Your task to perform on an android device: turn vacation reply on in the gmail app Image 0: 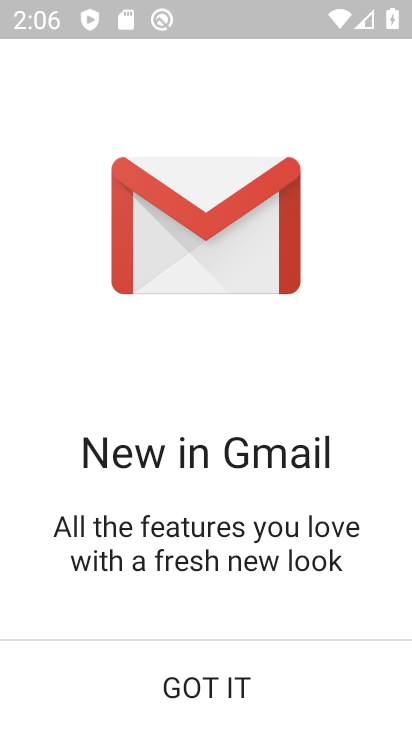
Step 0: press home button
Your task to perform on an android device: turn vacation reply on in the gmail app Image 1: 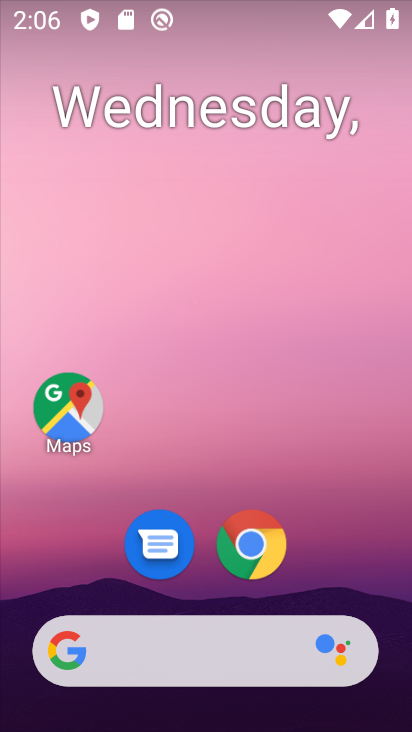
Step 1: drag from (366, 583) to (322, 214)
Your task to perform on an android device: turn vacation reply on in the gmail app Image 2: 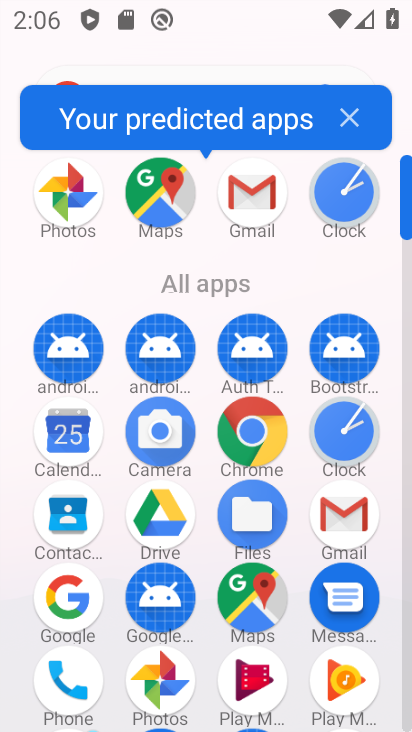
Step 2: click (337, 518)
Your task to perform on an android device: turn vacation reply on in the gmail app Image 3: 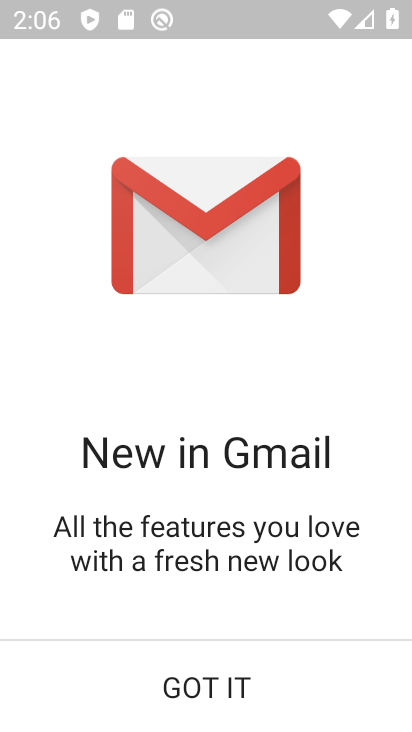
Step 3: click (197, 694)
Your task to perform on an android device: turn vacation reply on in the gmail app Image 4: 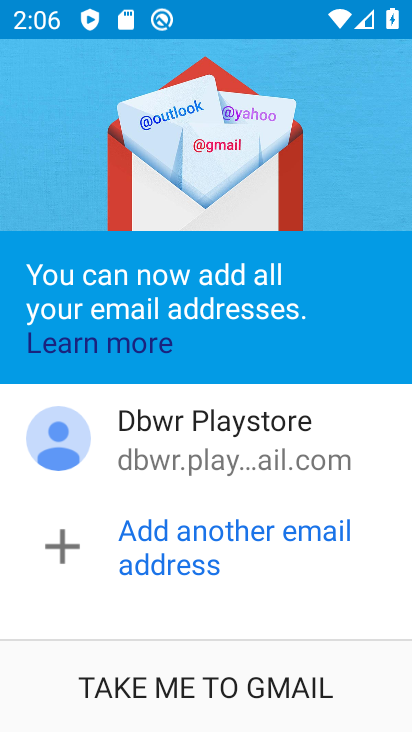
Step 4: click (273, 685)
Your task to perform on an android device: turn vacation reply on in the gmail app Image 5: 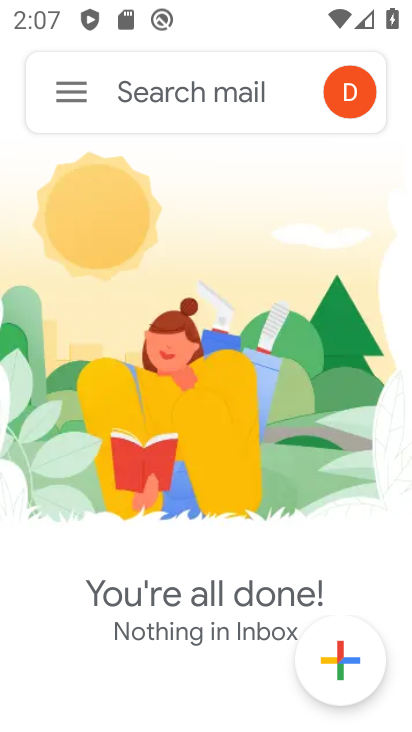
Step 5: click (72, 92)
Your task to perform on an android device: turn vacation reply on in the gmail app Image 6: 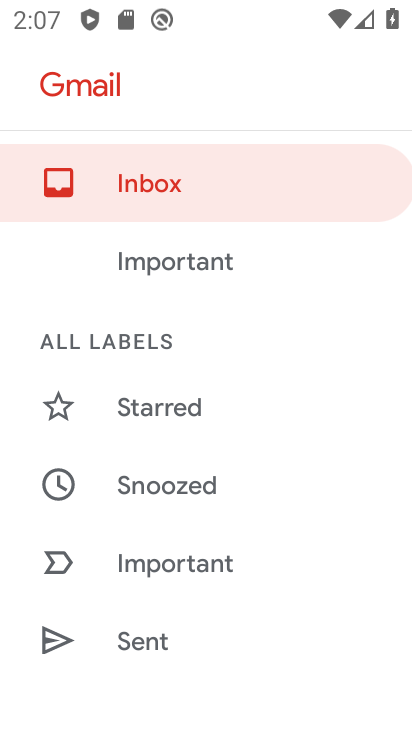
Step 6: drag from (201, 615) to (203, 215)
Your task to perform on an android device: turn vacation reply on in the gmail app Image 7: 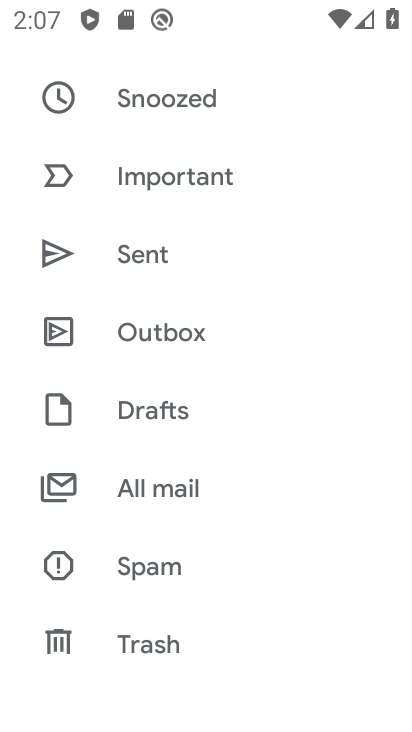
Step 7: drag from (235, 636) to (252, 297)
Your task to perform on an android device: turn vacation reply on in the gmail app Image 8: 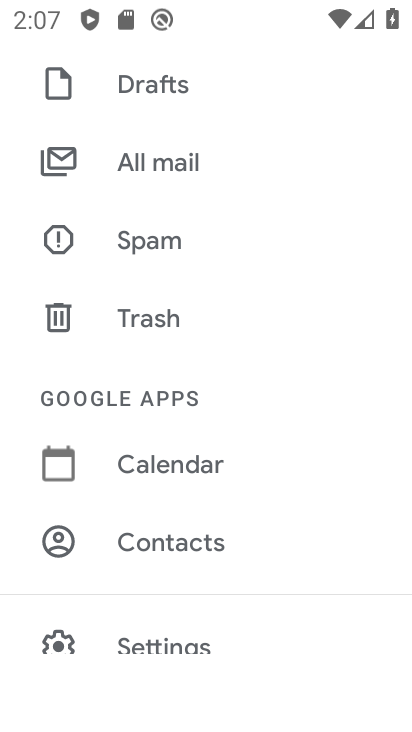
Step 8: drag from (251, 555) to (245, 277)
Your task to perform on an android device: turn vacation reply on in the gmail app Image 9: 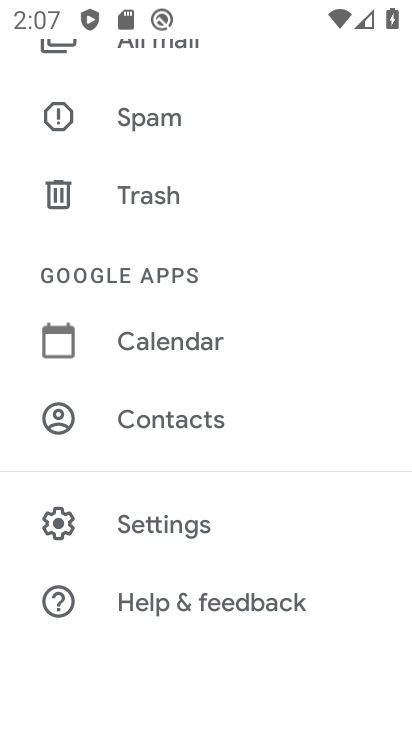
Step 9: click (216, 547)
Your task to perform on an android device: turn vacation reply on in the gmail app Image 10: 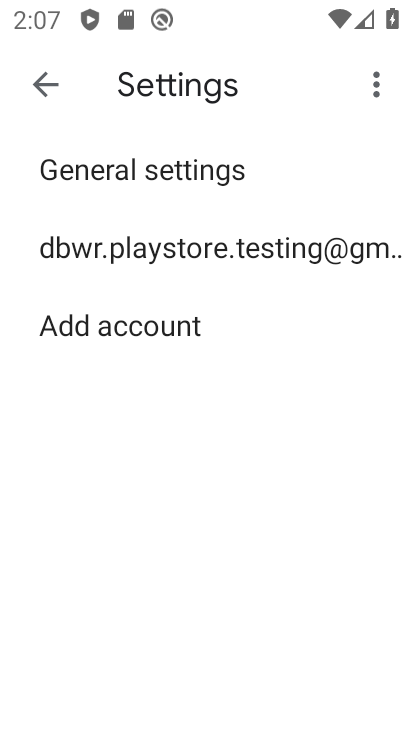
Step 10: click (262, 261)
Your task to perform on an android device: turn vacation reply on in the gmail app Image 11: 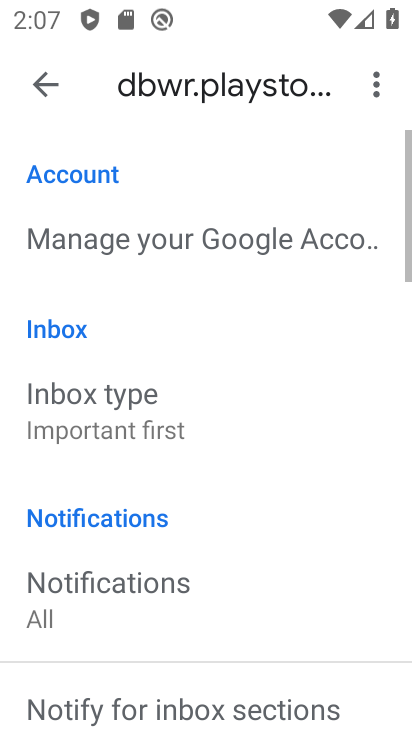
Step 11: drag from (218, 644) to (209, 274)
Your task to perform on an android device: turn vacation reply on in the gmail app Image 12: 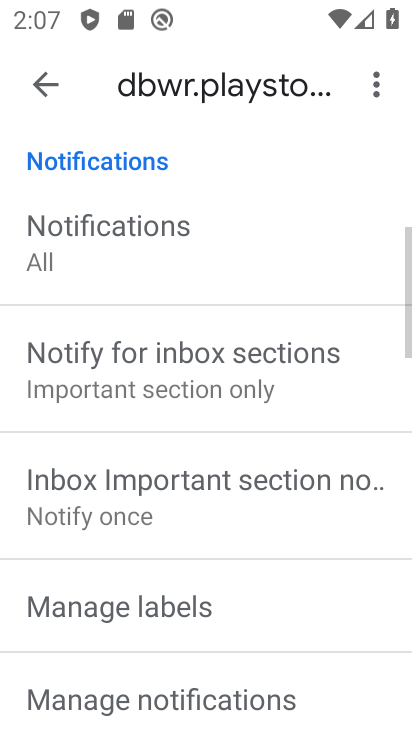
Step 12: drag from (203, 628) to (196, 334)
Your task to perform on an android device: turn vacation reply on in the gmail app Image 13: 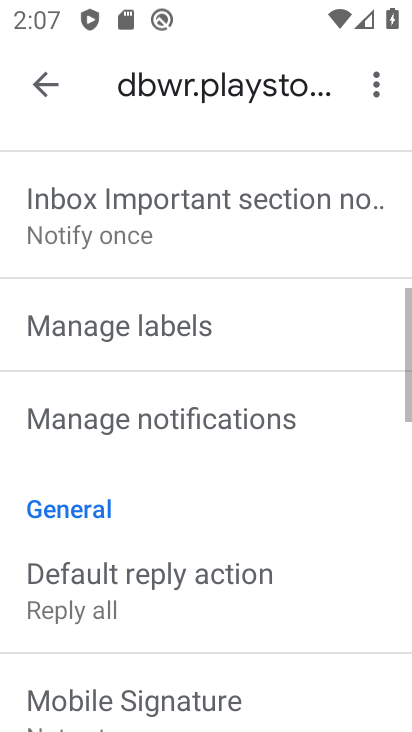
Step 13: drag from (179, 347) to (180, 283)
Your task to perform on an android device: turn vacation reply on in the gmail app Image 14: 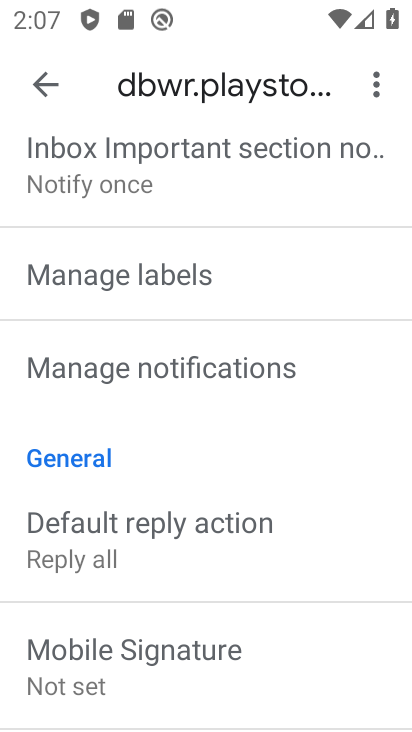
Step 14: drag from (181, 650) to (224, 229)
Your task to perform on an android device: turn vacation reply on in the gmail app Image 15: 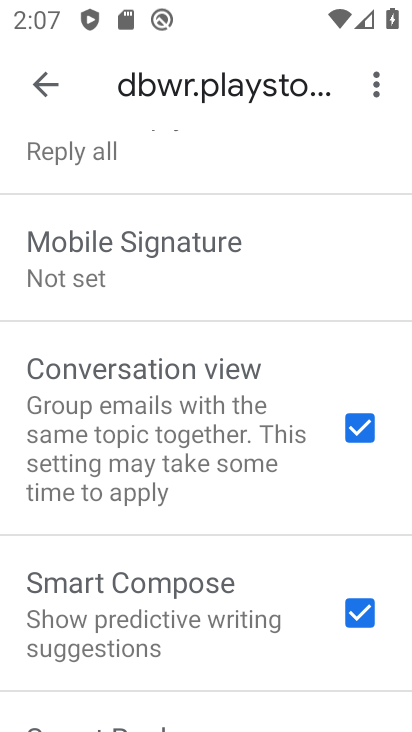
Step 15: drag from (172, 634) to (201, 291)
Your task to perform on an android device: turn vacation reply on in the gmail app Image 16: 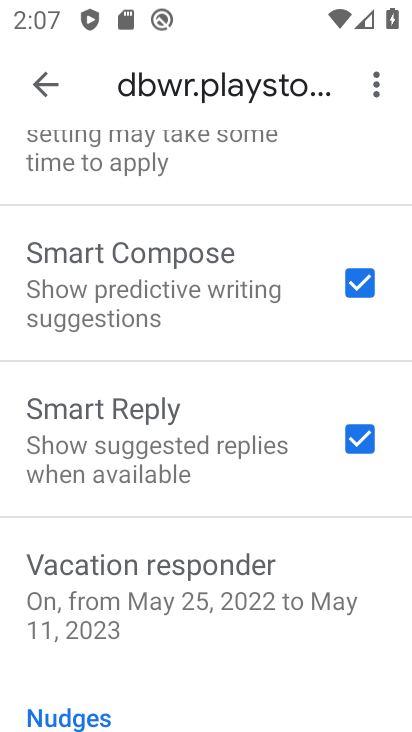
Step 16: click (200, 601)
Your task to perform on an android device: turn vacation reply on in the gmail app Image 17: 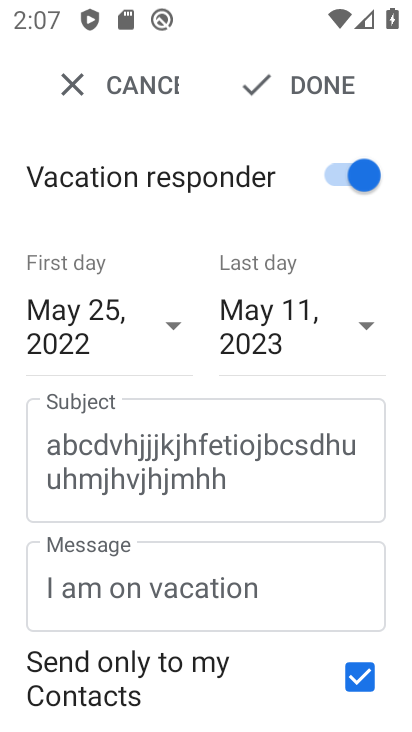
Step 17: task complete